Your task to perform on an android device: Open internet settings Image 0: 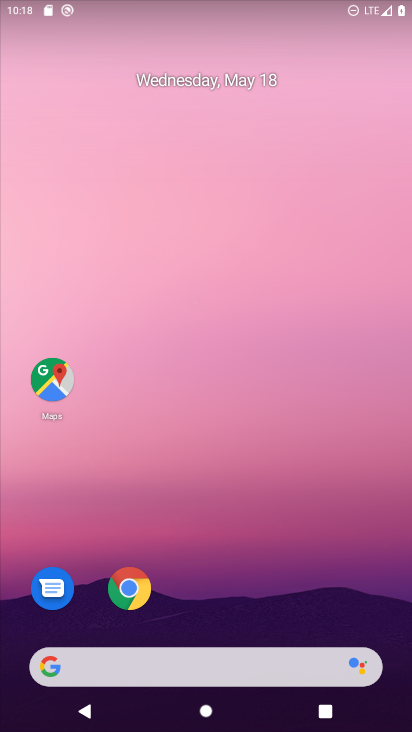
Step 0: drag from (387, 635) to (354, 3)
Your task to perform on an android device: Open internet settings Image 1: 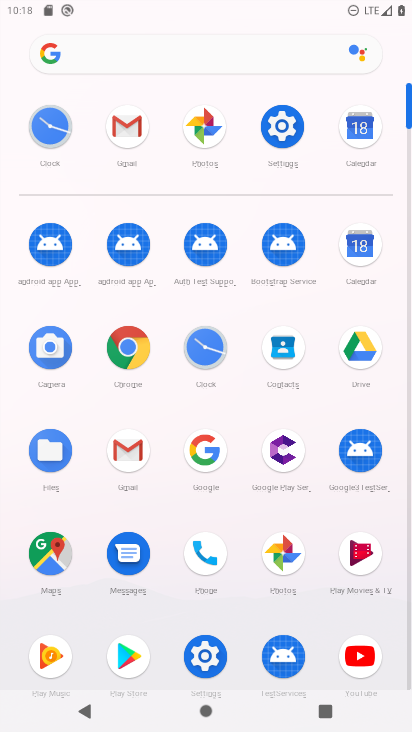
Step 1: click (281, 127)
Your task to perform on an android device: Open internet settings Image 2: 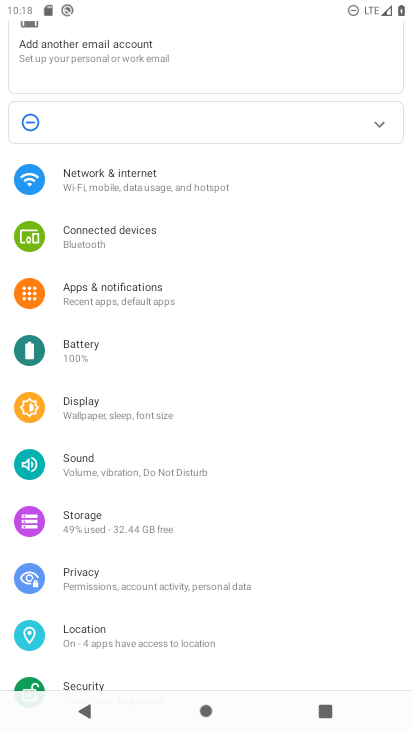
Step 2: click (121, 189)
Your task to perform on an android device: Open internet settings Image 3: 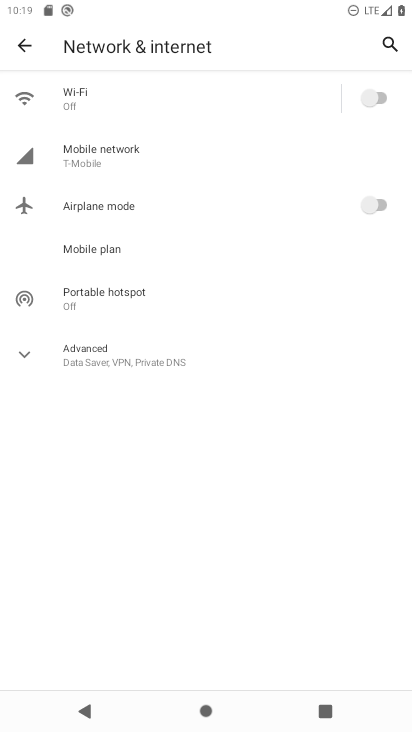
Step 3: task complete